Your task to perform on an android device: Add "acer nitro" to the cart on target.com, then select checkout. Image 0: 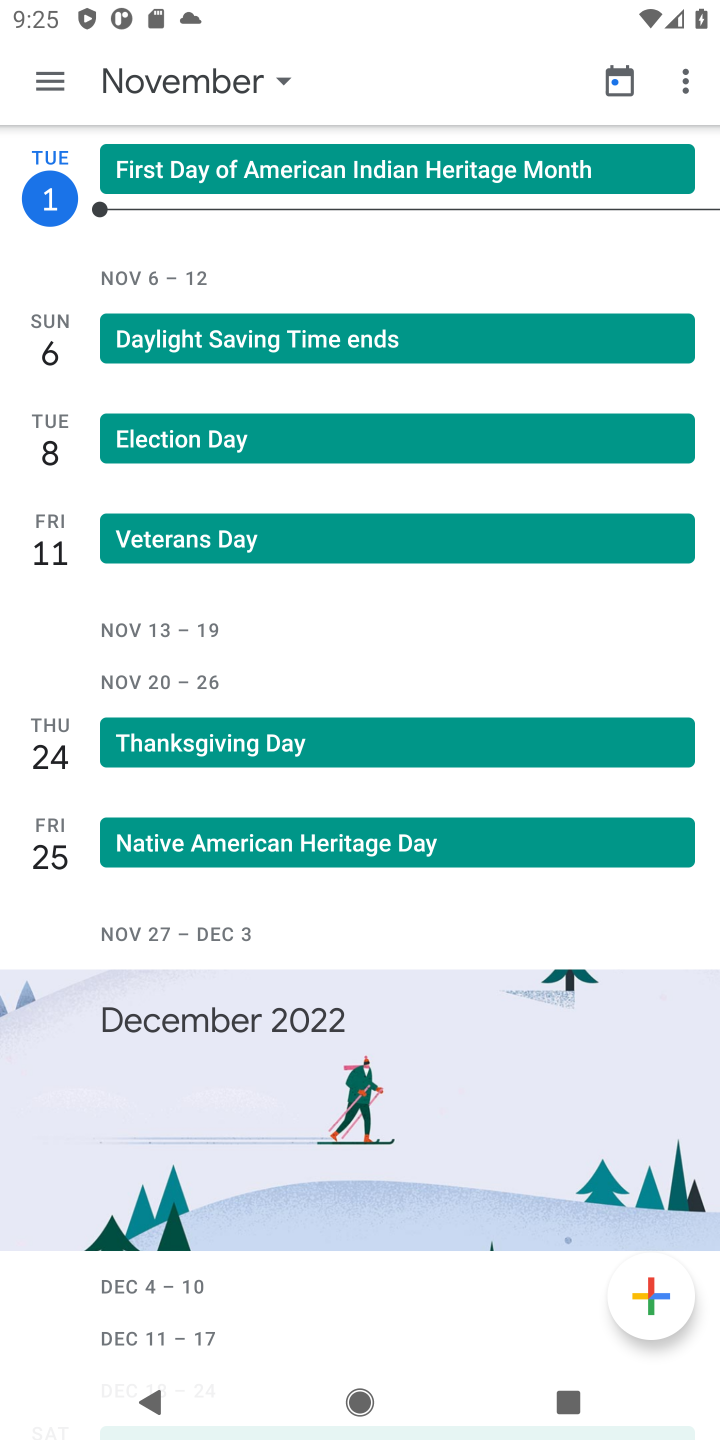
Step 0: press home button
Your task to perform on an android device: Add "acer nitro" to the cart on target.com, then select checkout. Image 1: 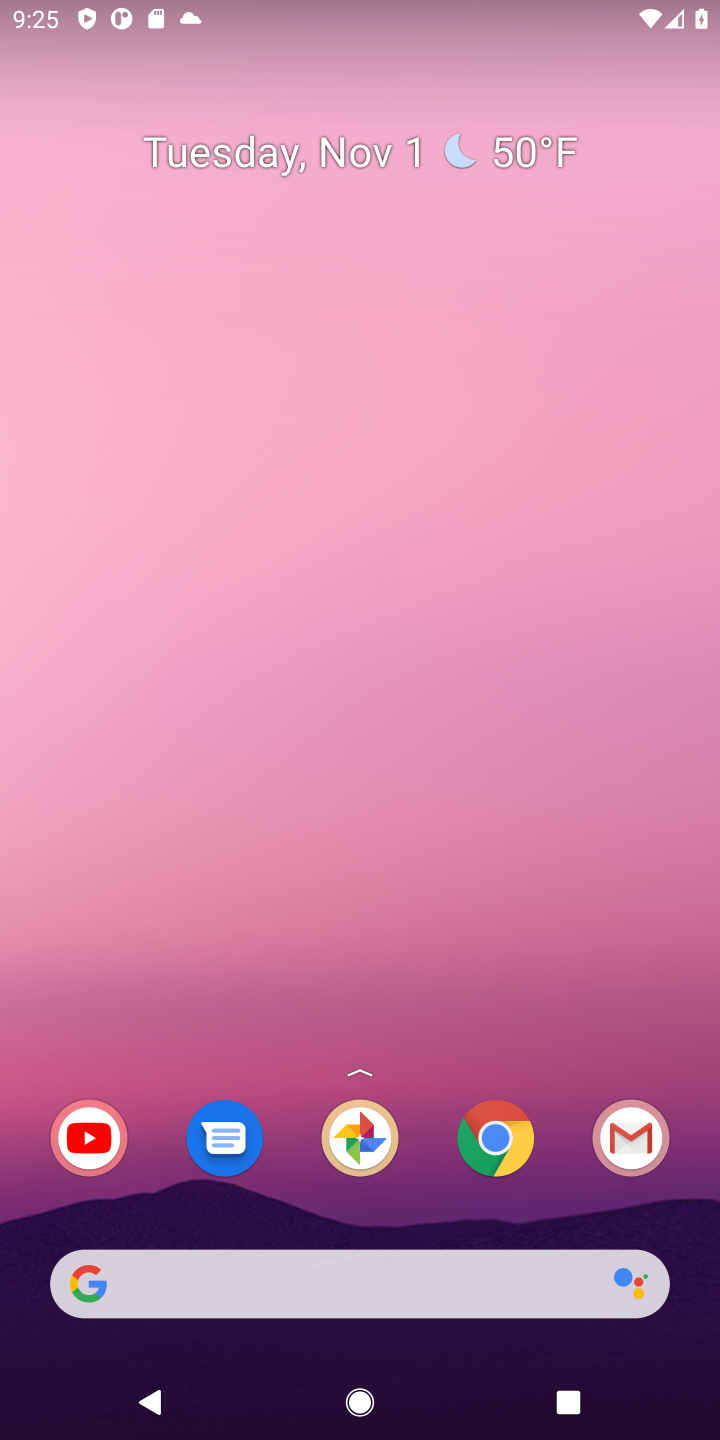
Step 1: click (497, 1139)
Your task to perform on an android device: Add "acer nitro" to the cart on target.com, then select checkout. Image 2: 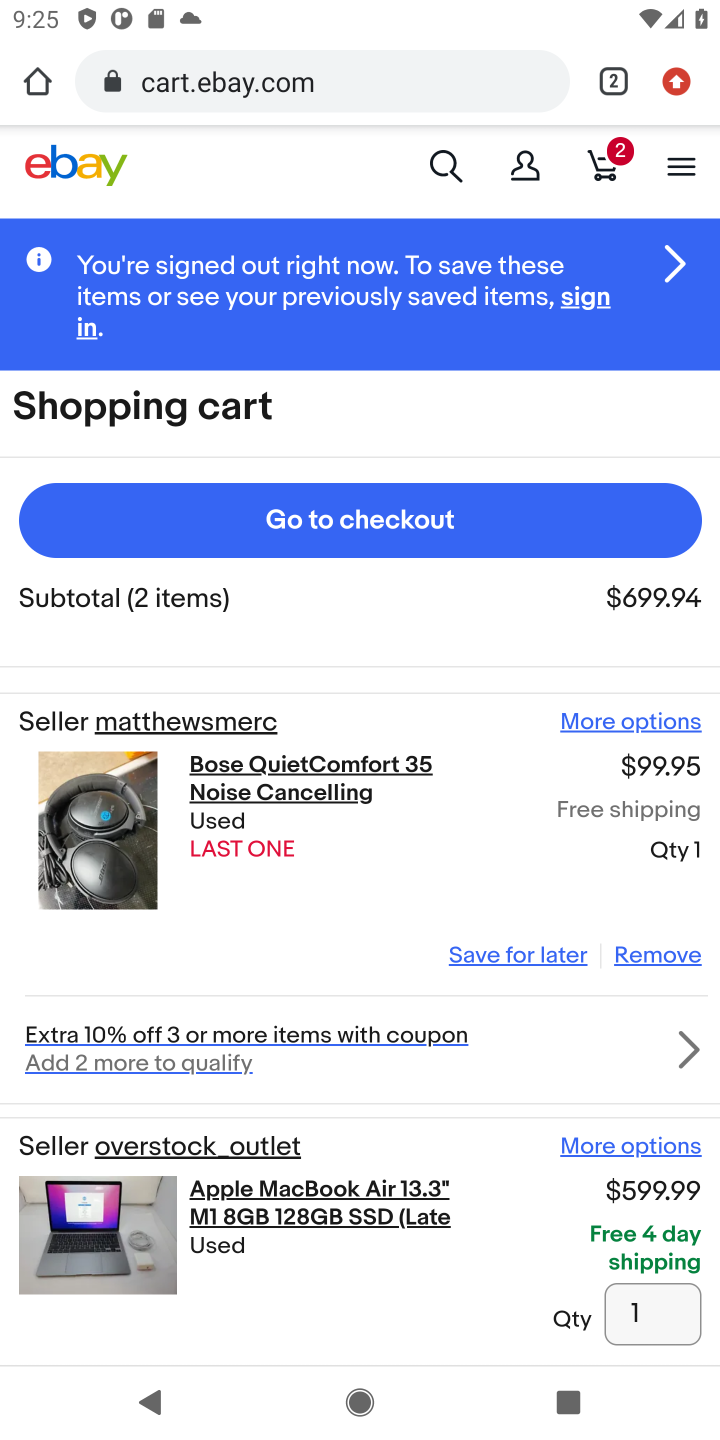
Step 2: click (365, 88)
Your task to perform on an android device: Add "acer nitro" to the cart on target.com, then select checkout. Image 3: 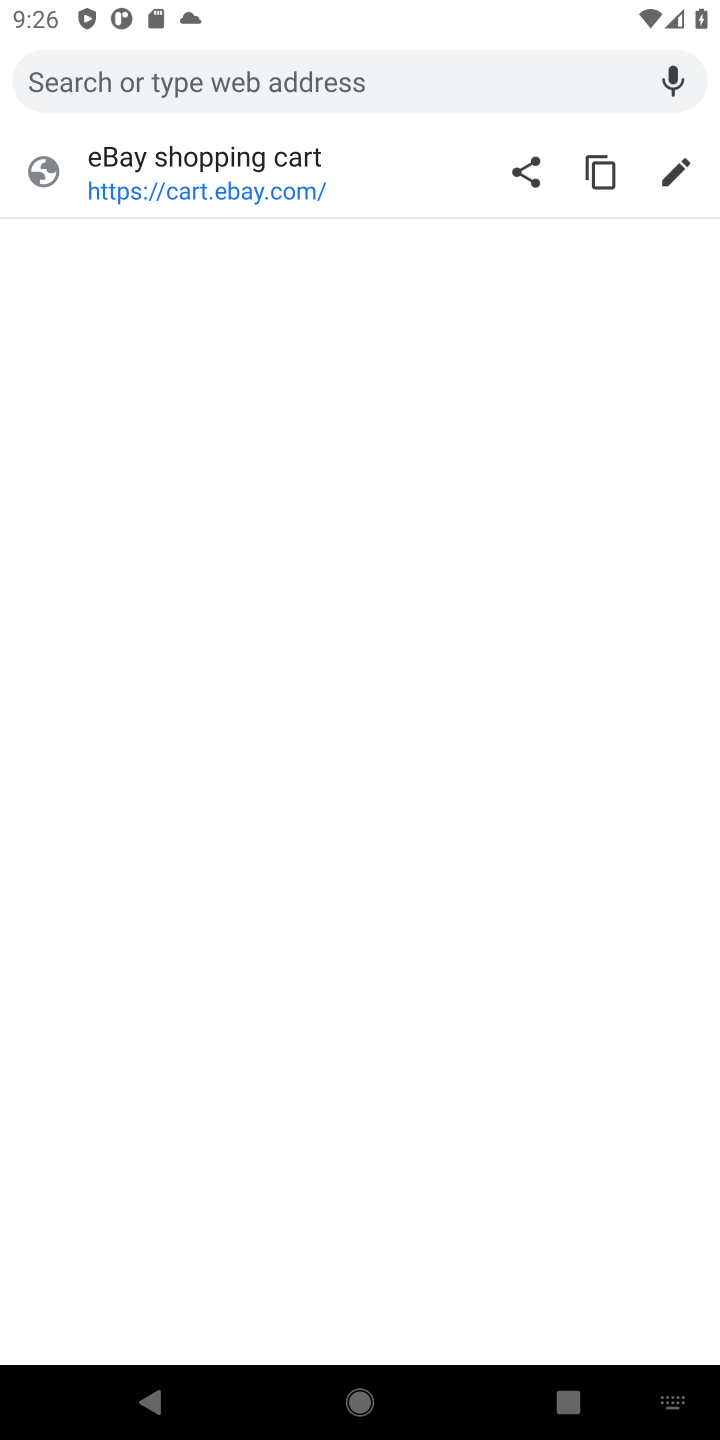
Step 3: type "target.com"
Your task to perform on an android device: Add "acer nitro" to the cart on target.com, then select checkout. Image 4: 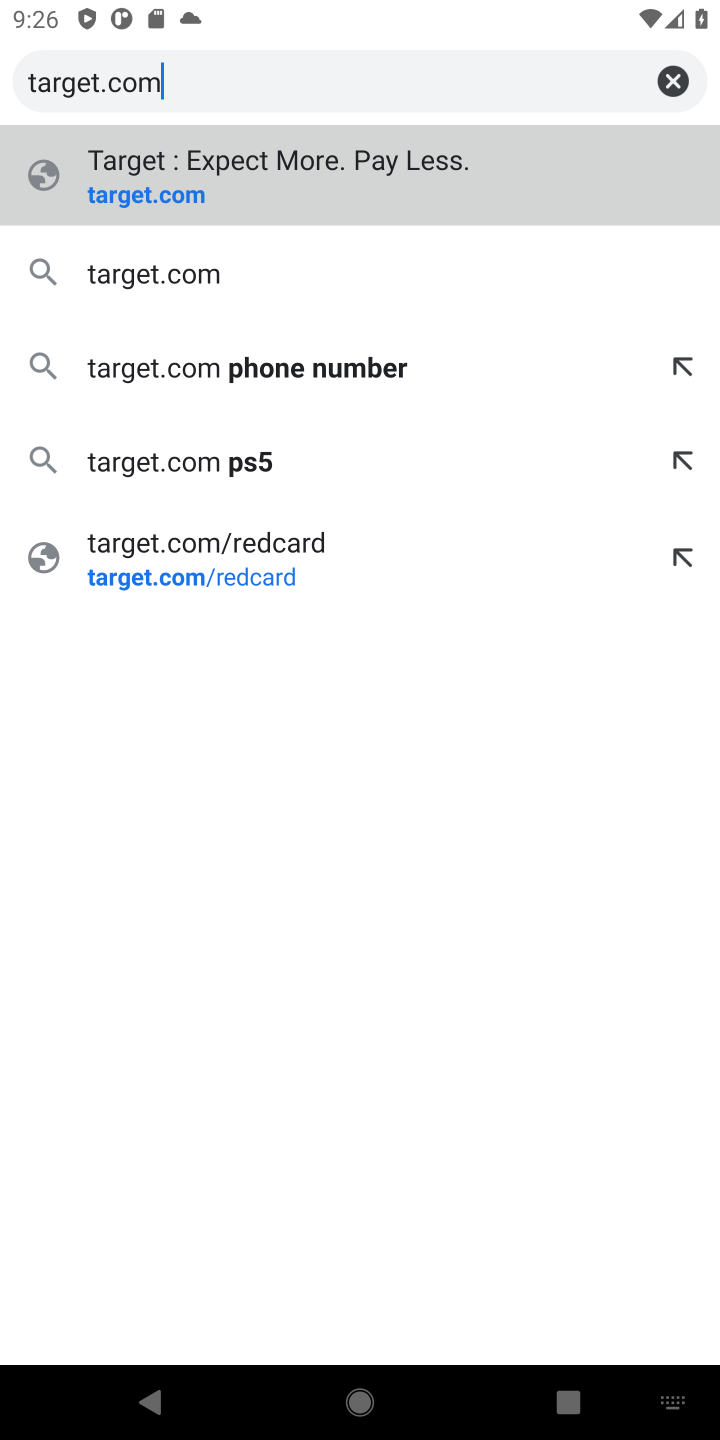
Step 4: click (176, 277)
Your task to perform on an android device: Add "acer nitro" to the cart on target.com, then select checkout. Image 5: 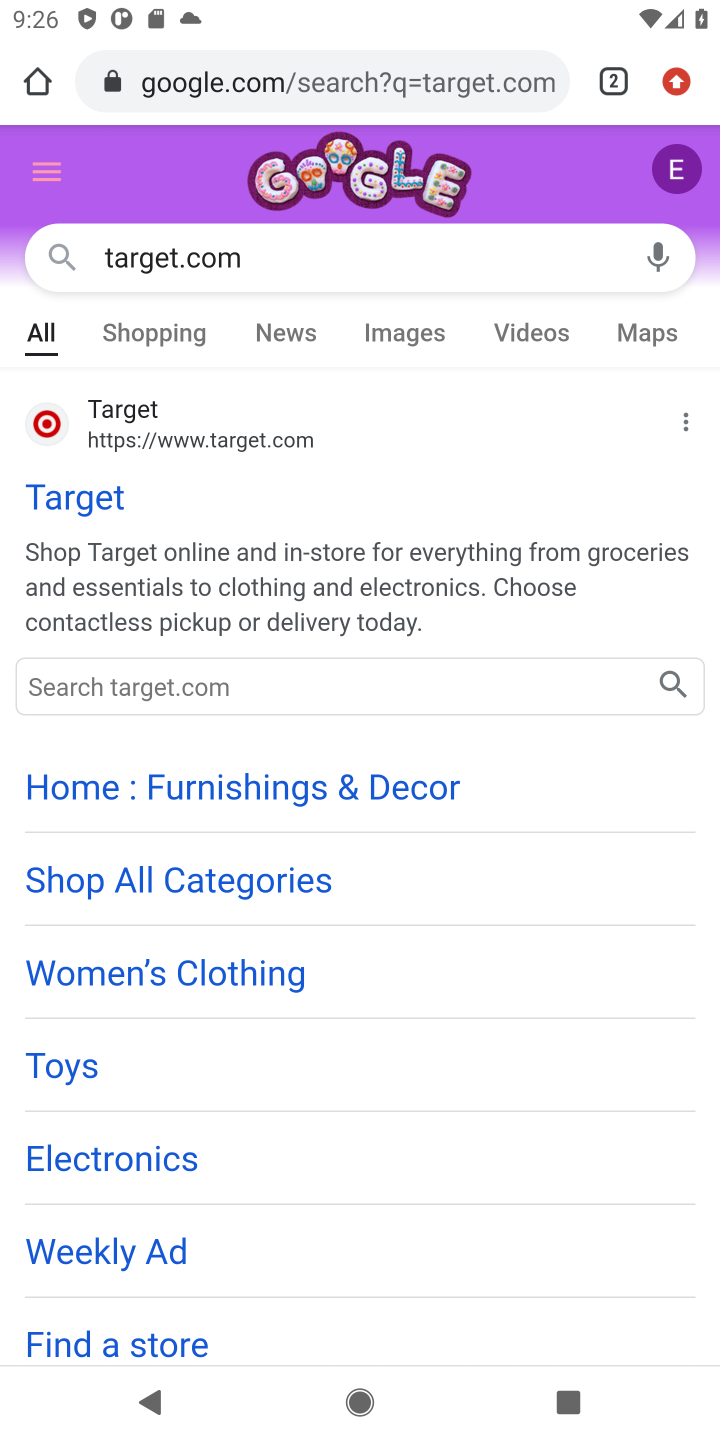
Step 5: click (96, 503)
Your task to perform on an android device: Add "acer nitro" to the cart on target.com, then select checkout. Image 6: 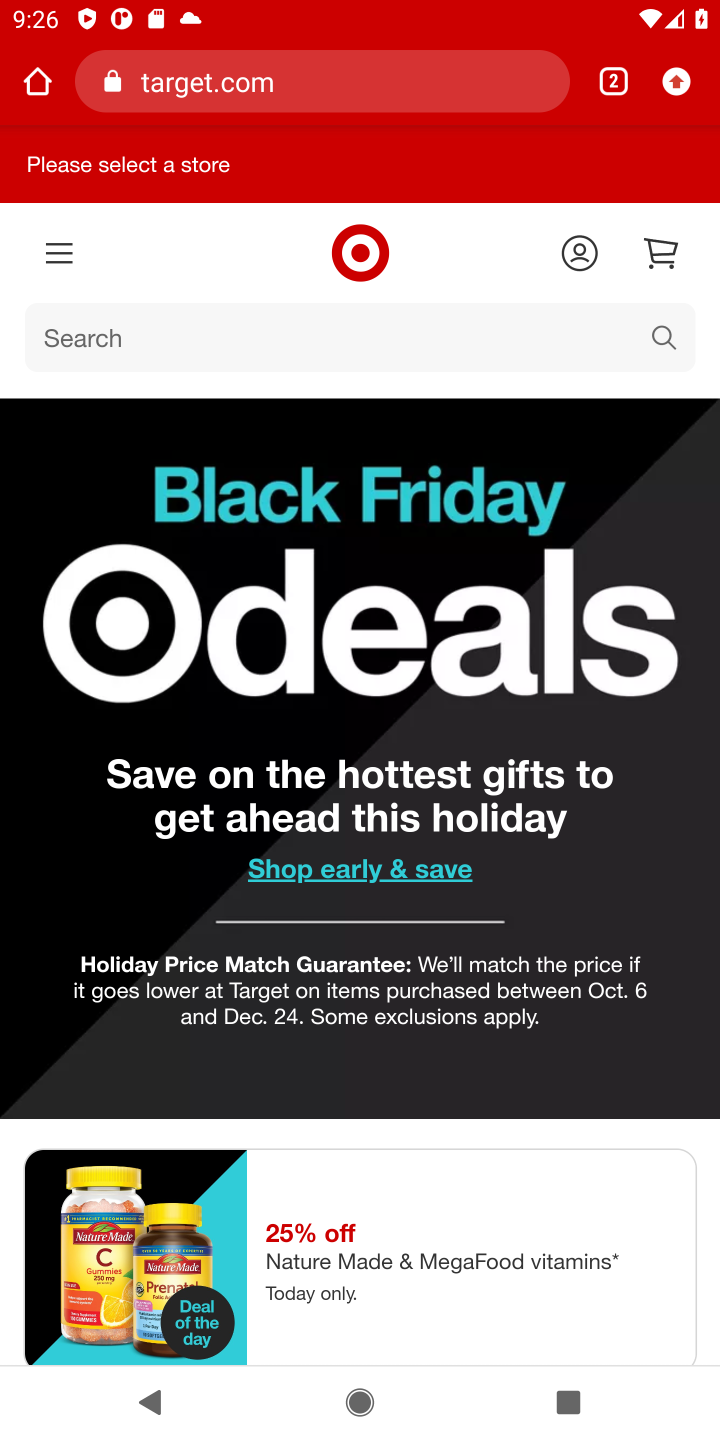
Step 6: click (316, 366)
Your task to perform on an android device: Add "acer nitro" to the cart on target.com, then select checkout. Image 7: 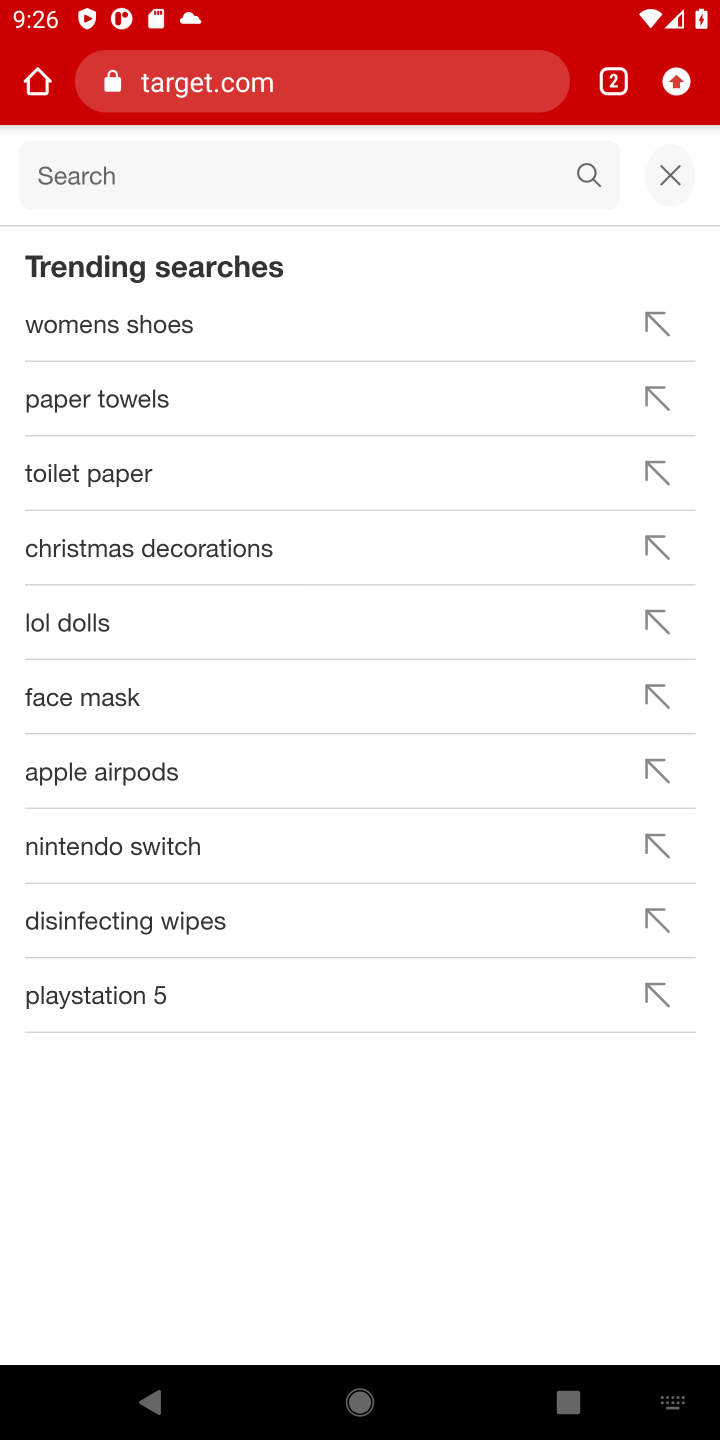
Step 7: type "acer nitro"
Your task to perform on an android device: Add "acer nitro" to the cart on target.com, then select checkout. Image 8: 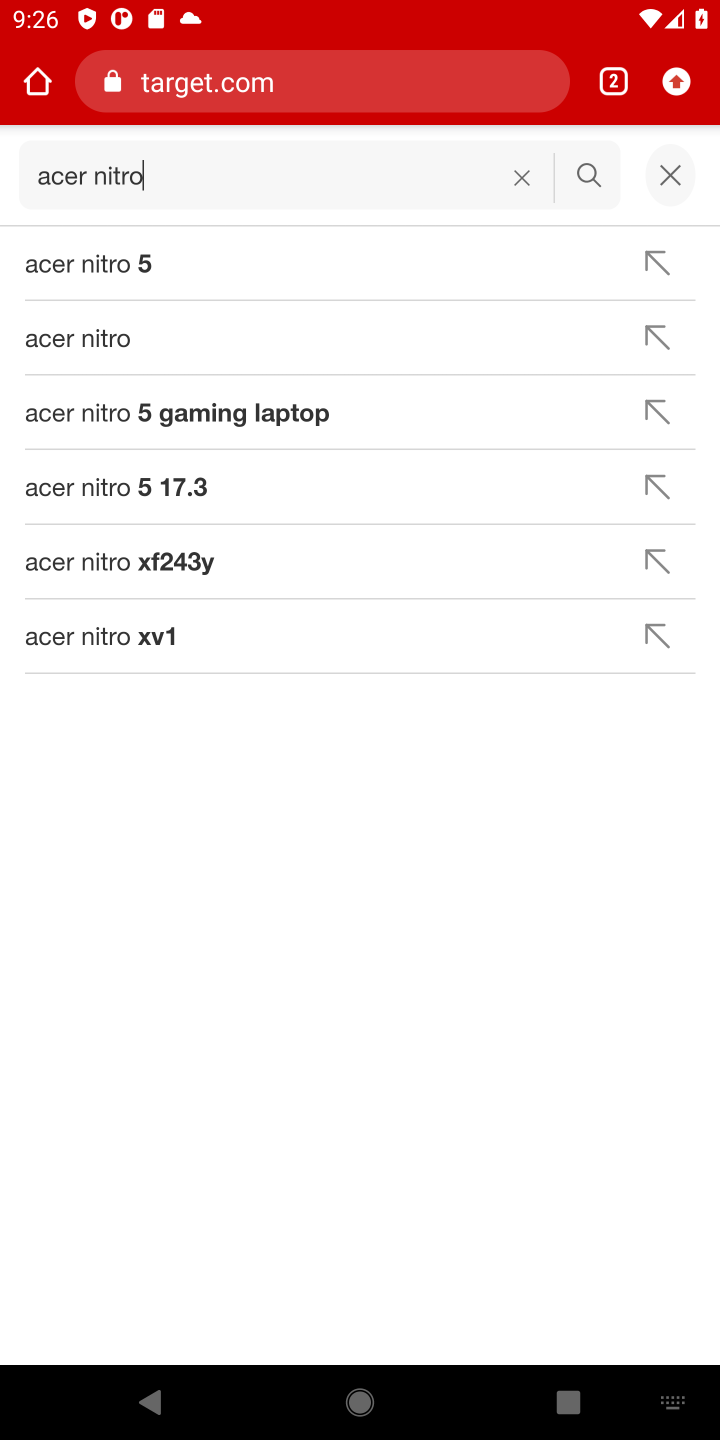
Step 8: click (592, 182)
Your task to perform on an android device: Add "acer nitro" to the cart on target.com, then select checkout. Image 9: 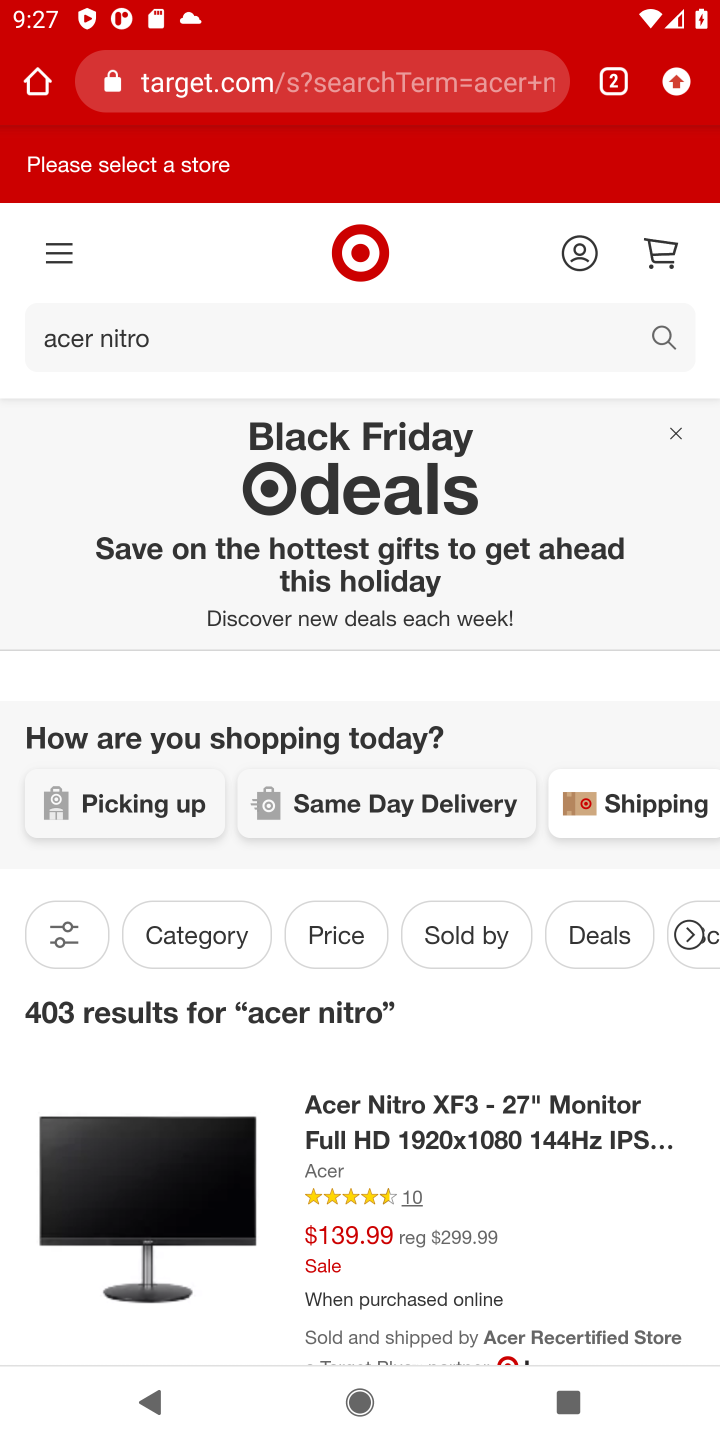
Step 9: click (431, 1125)
Your task to perform on an android device: Add "acer nitro" to the cart on target.com, then select checkout. Image 10: 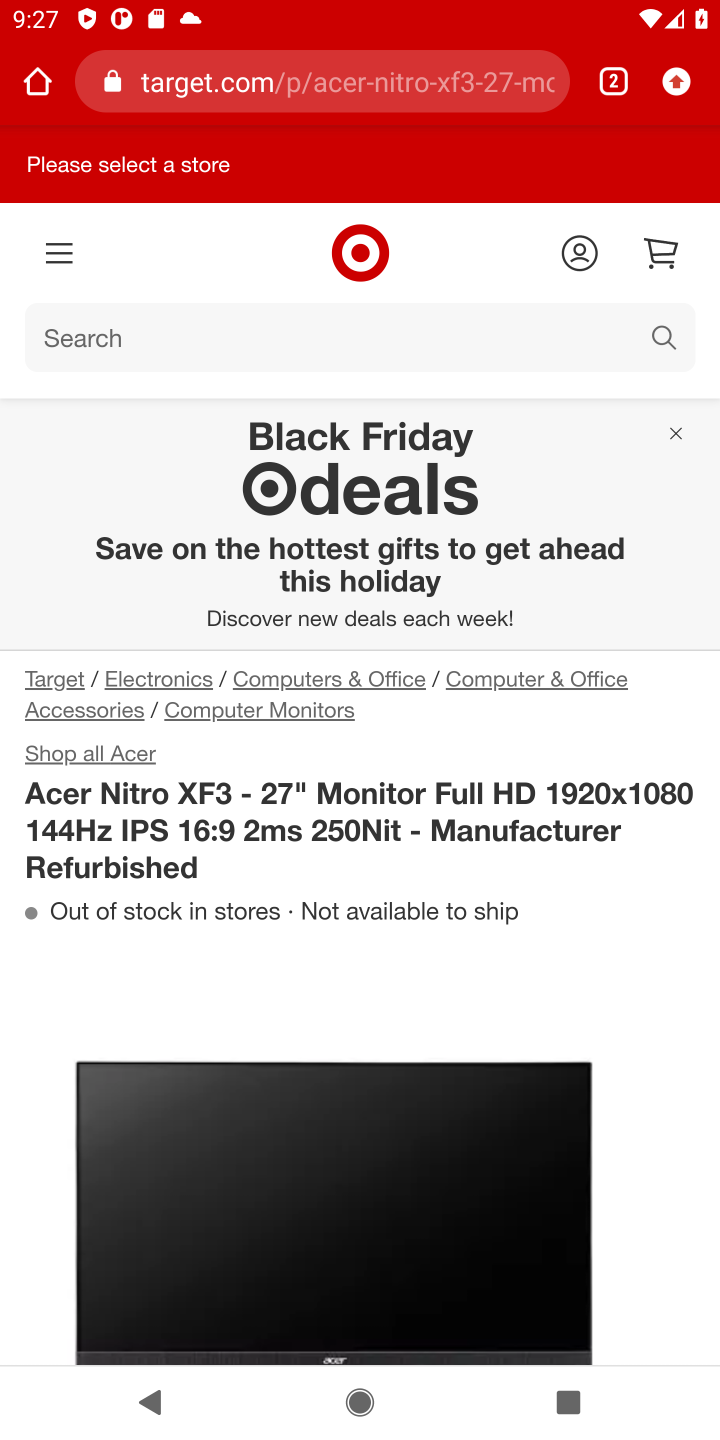
Step 10: drag from (417, 994) to (398, 502)
Your task to perform on an android device: Add "acer nitro" to the cart on target.com, then select checkout. Image 11: 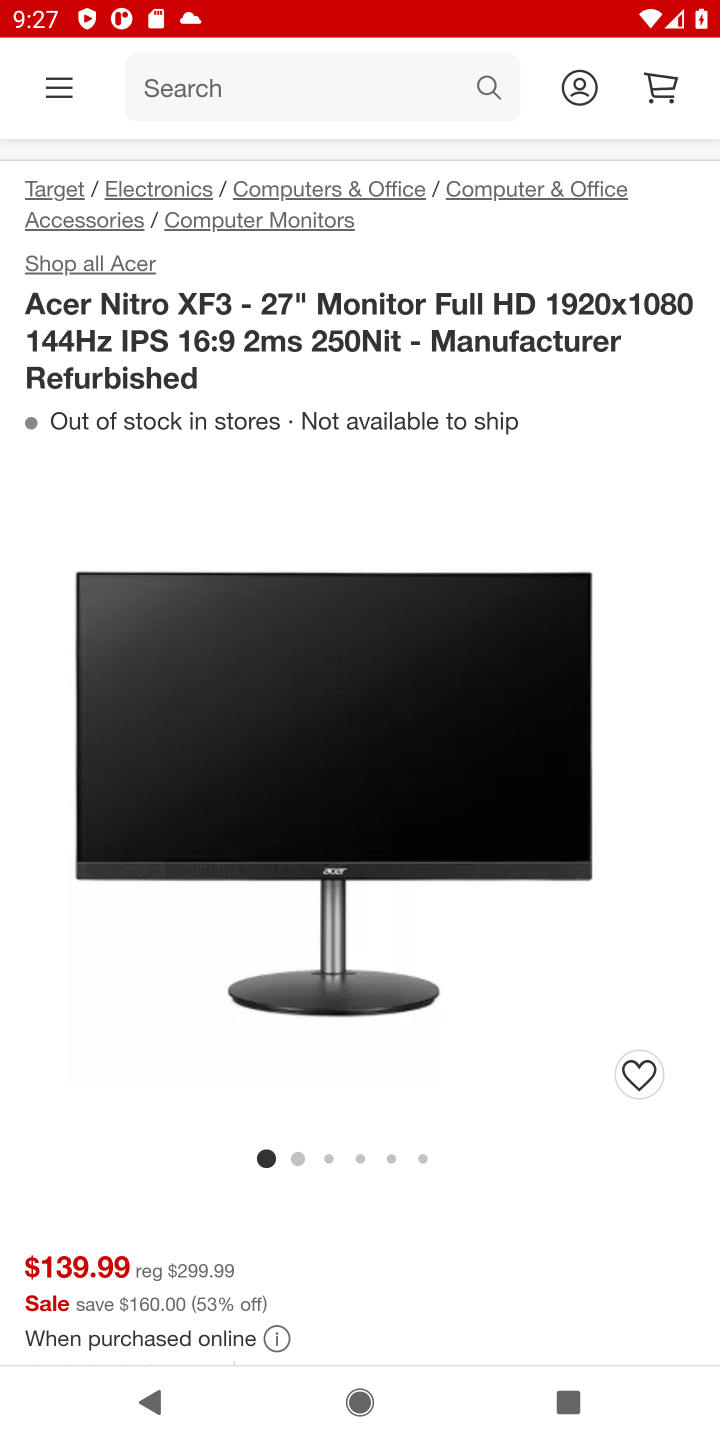
Step 11: drag from (373, 1204) to (385, 475)
Your task to perform on an android device: Add "acer nitro" to the cart on target.com, then select checkout. Image 12: 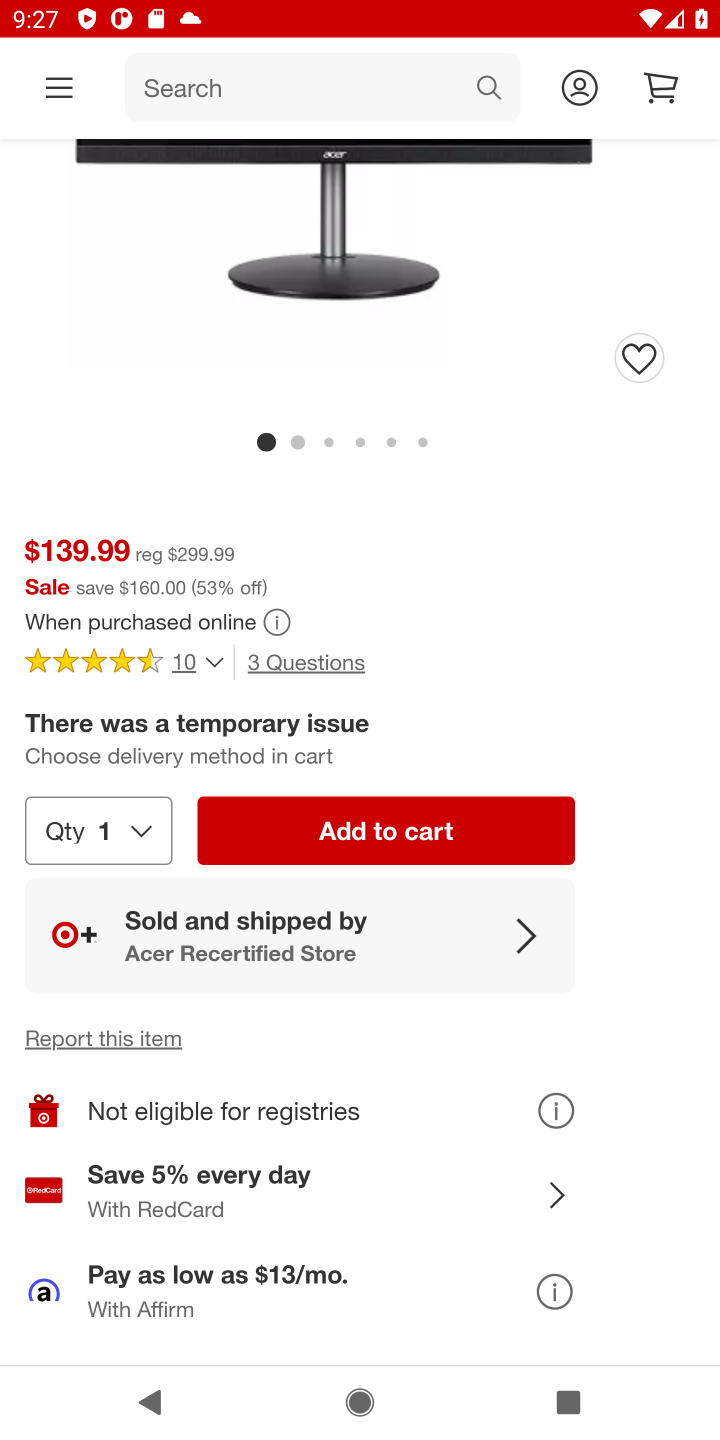
Step 12: click (363, 827)
Your task to perform on an android device: Add "acer nitro" to the cart on target.com, then select checkout. Image 13: 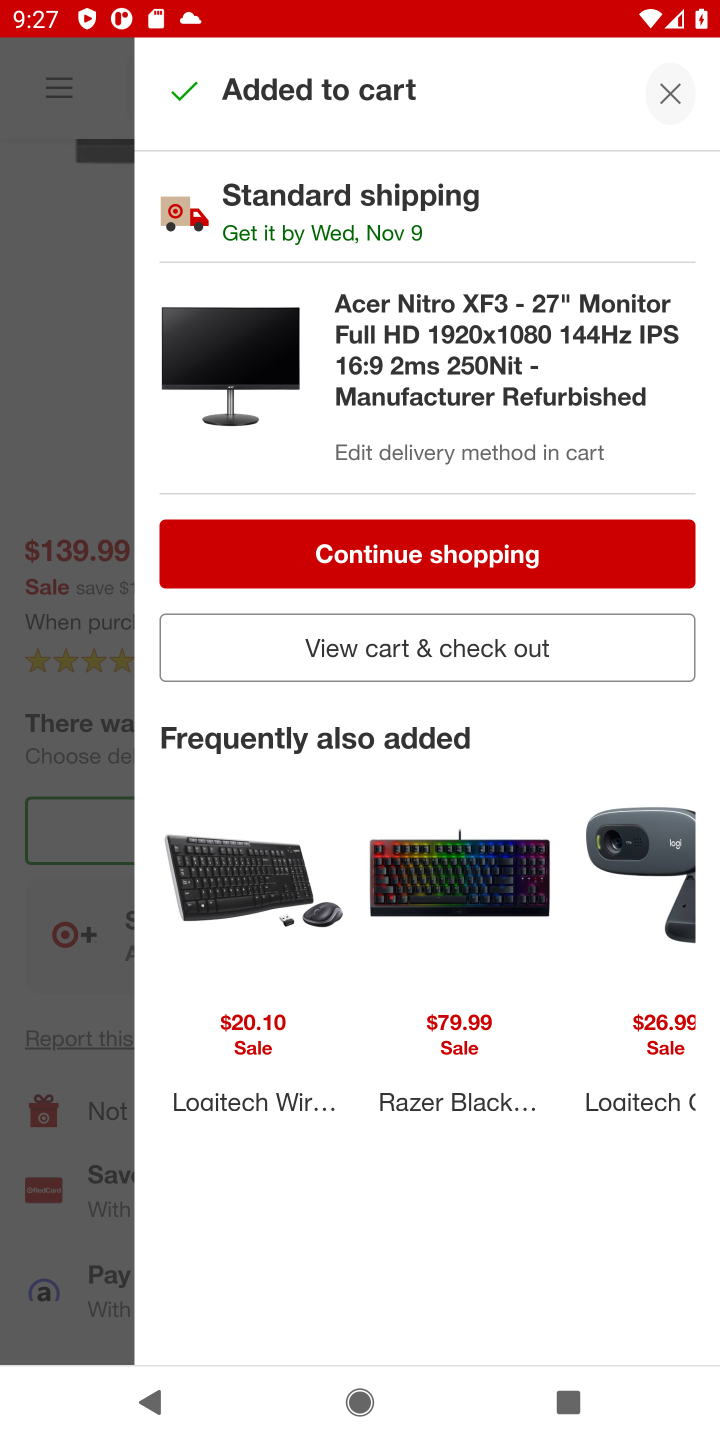
Step 13: click (424, 655)
Your task to perform on an android device: Add "acer nitro" to the cart on target.com, then select checkout. Image 14: 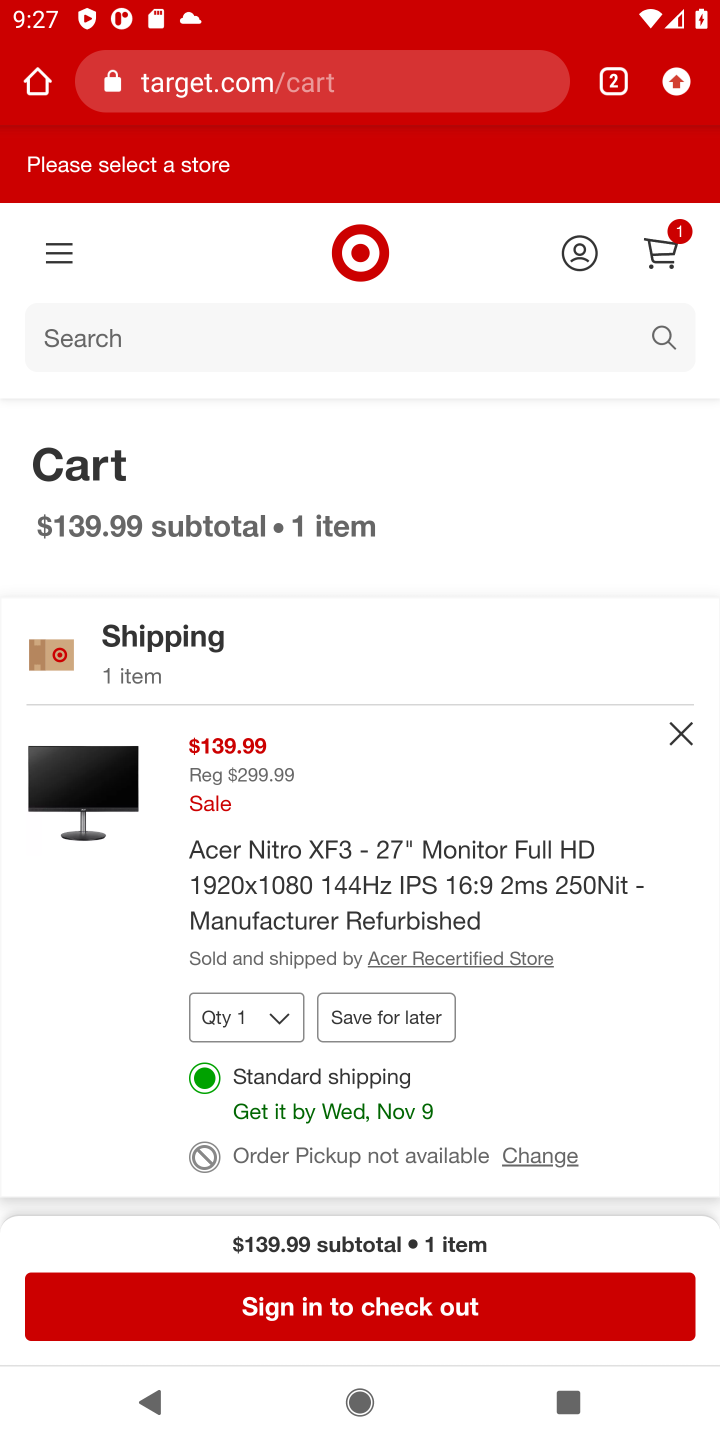
Step 14: click (390, 1307)
Your task to perform on an android device: Add "acer nitro" to the cart on target.com, then select checkout. Image 15: 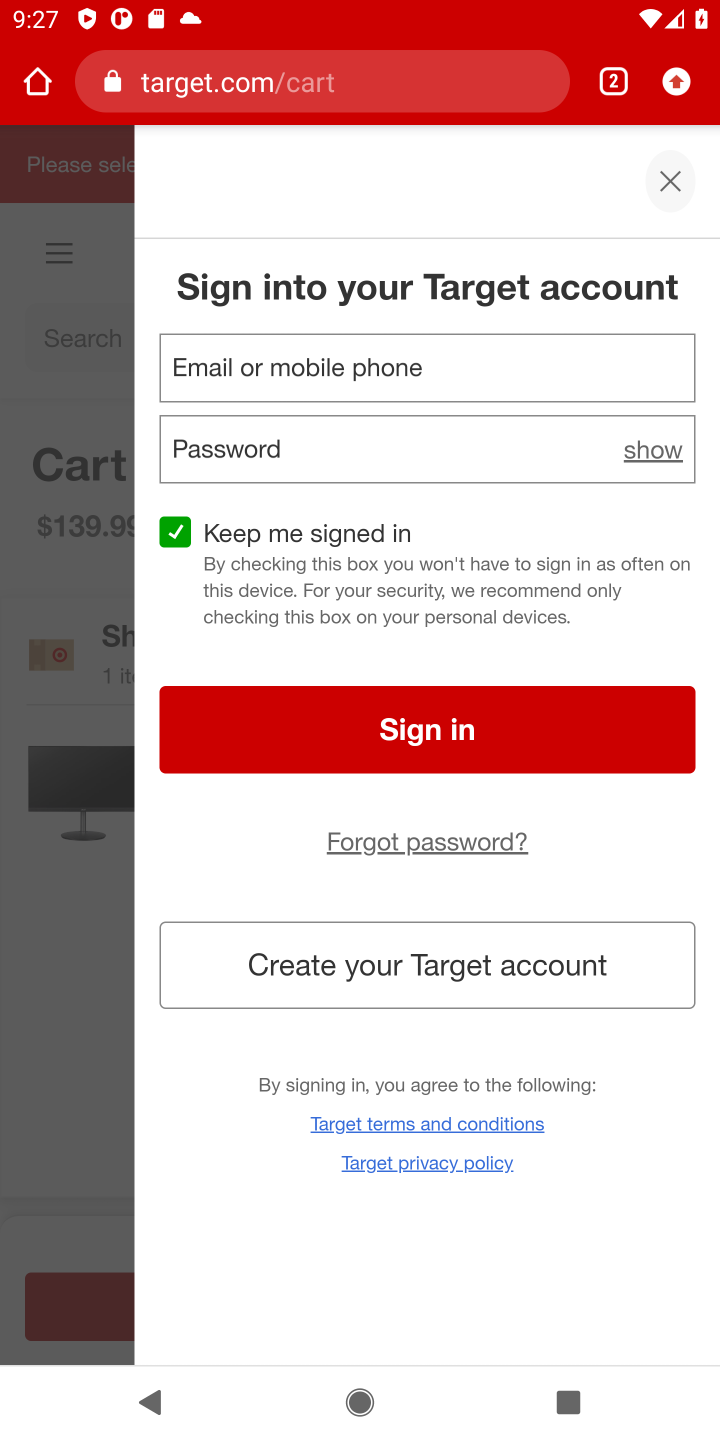
Step 15: task complete